Your task to perform on an android device: Show me productivity apps on the Play Store Image 0: 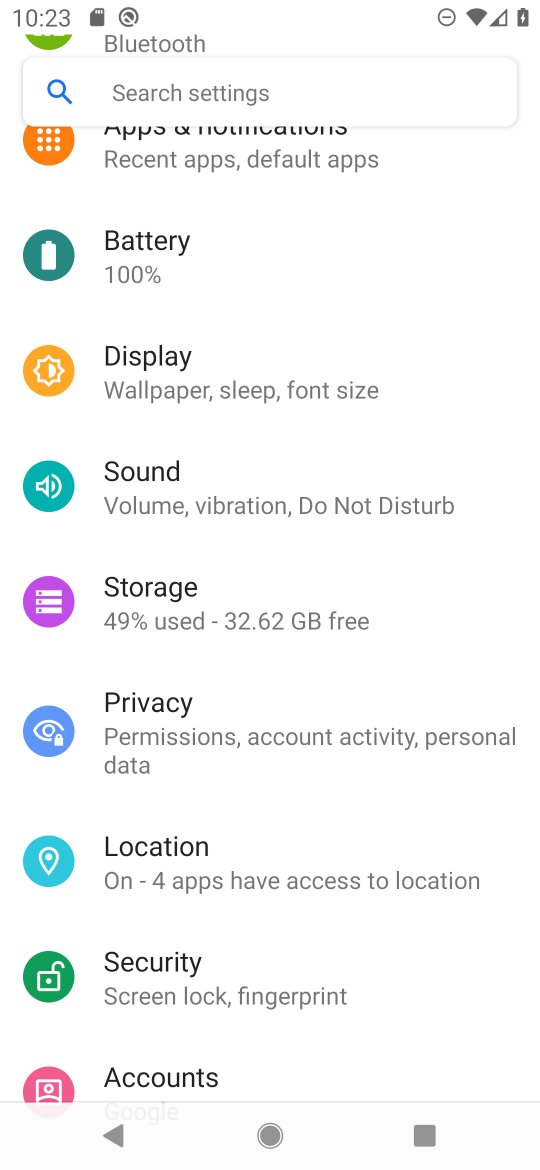
Step 0: press home button
Your task to perform on an android device: Show me productivity apps on the Play Store Image 1: 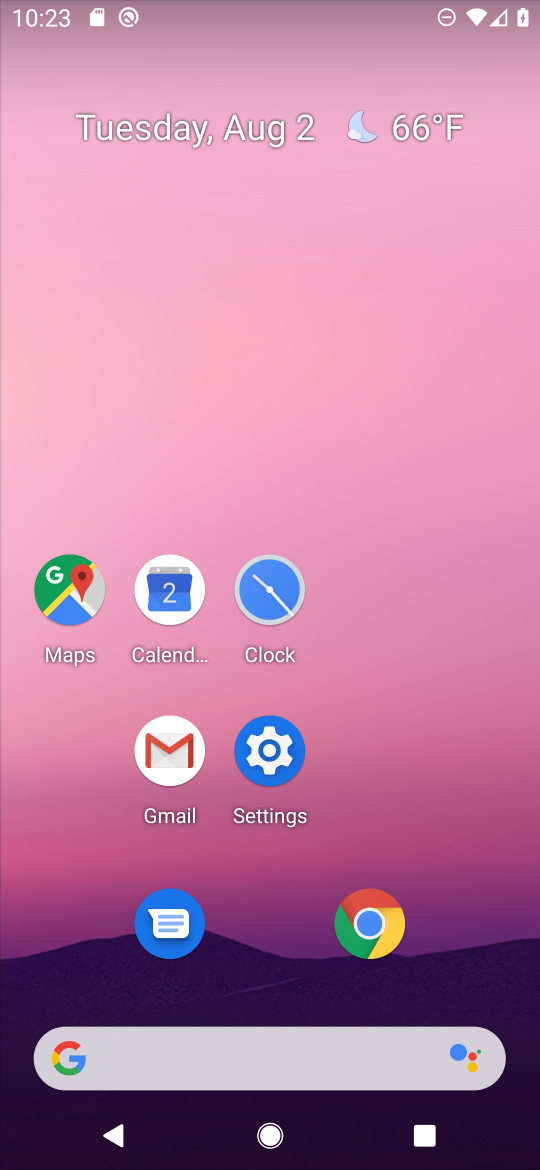
Step 1: drag from (485, 1039) to (423, 32)
Your task to perform on an android device: Show me productivity apps on the Play Store Image 2: 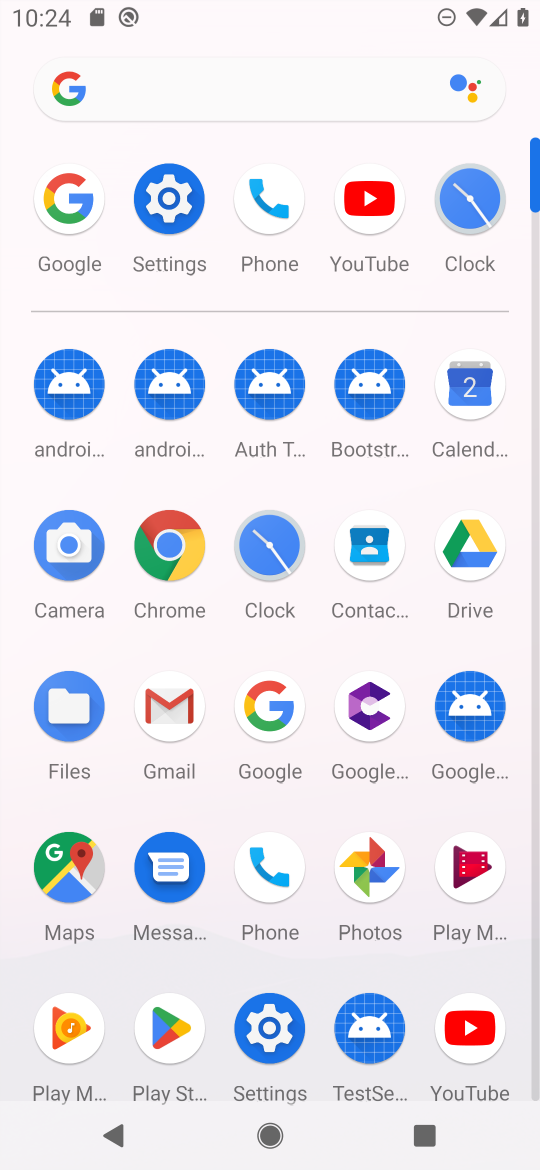
Step 2: click (143, 1046)
Your task to perform on an android device: Show me productivity apps on the Play Store Image 3: 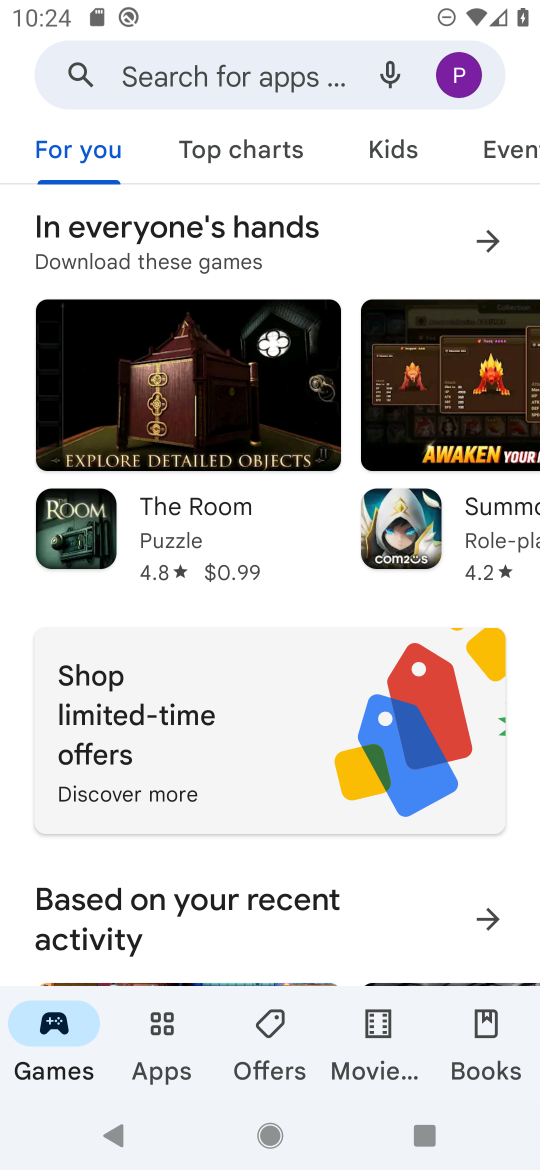
Step 3: click (358, 76)
Your task to perform on an android device: Show me productivity apps on the Play Store Image 4: 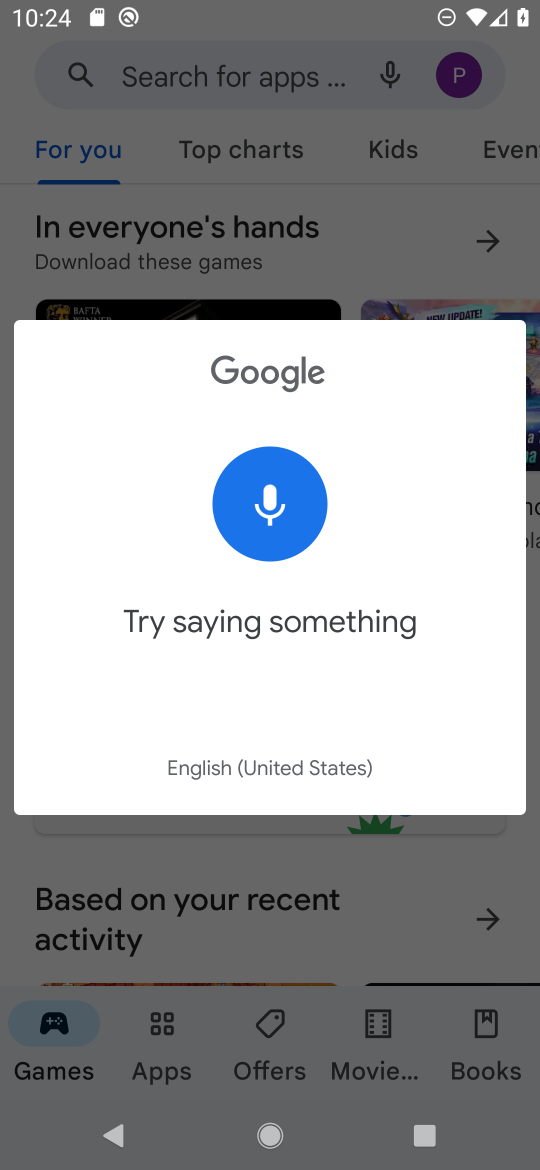
Step 4: press back button
Your task to perform on an android device: Show me productivity apps on the Play Store Image 5: 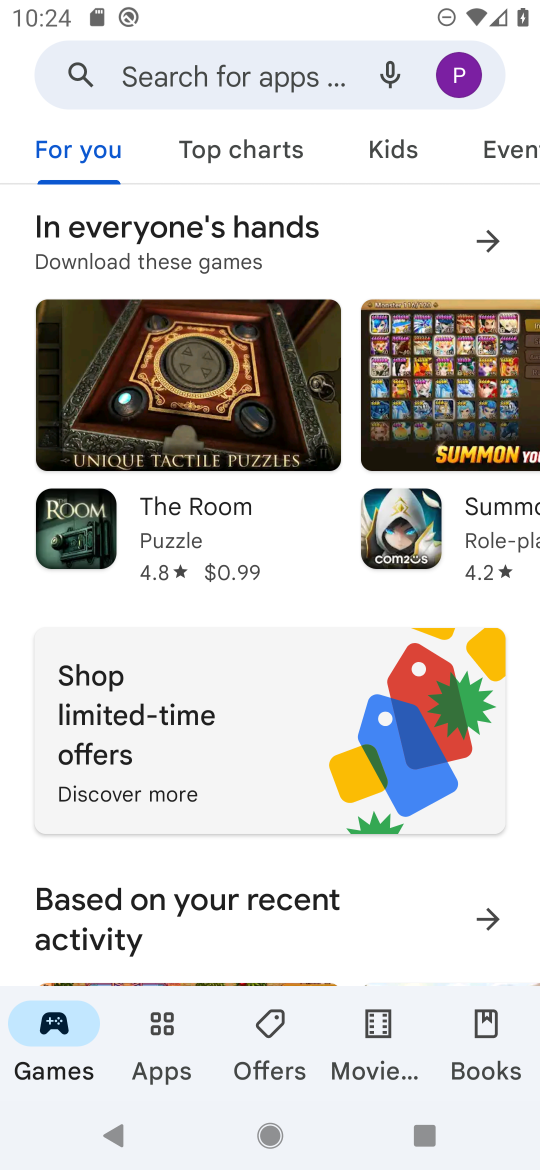
Step 5: click (270, 74)
Your task to perform on an android device: Show me productivity apps on the Play Store Image 6: 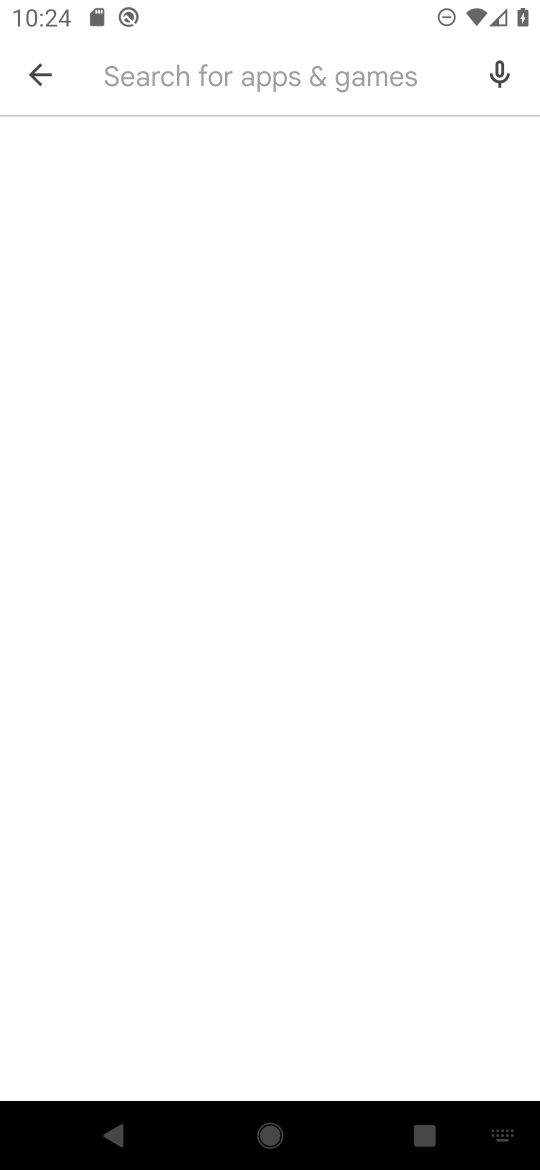
Step 6: type "productivity apps on the Play Store"
Your task to perform on an android device: Show me productivity apps on the Play Store Image 7: 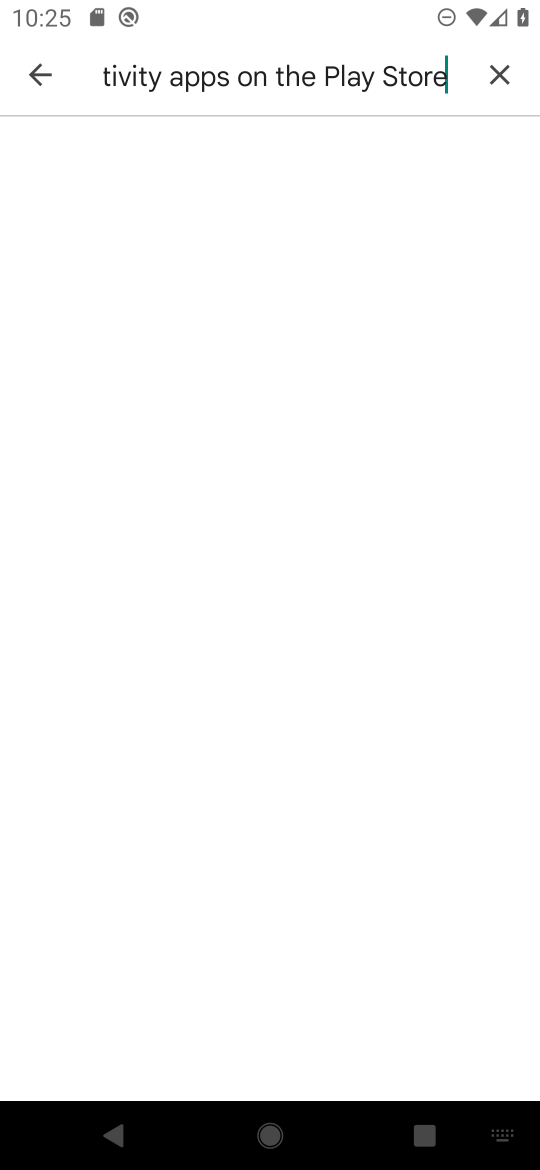
Step 7: task complete